Your task to perform on an android device: turn off smart reply in the gmail app Image 0: 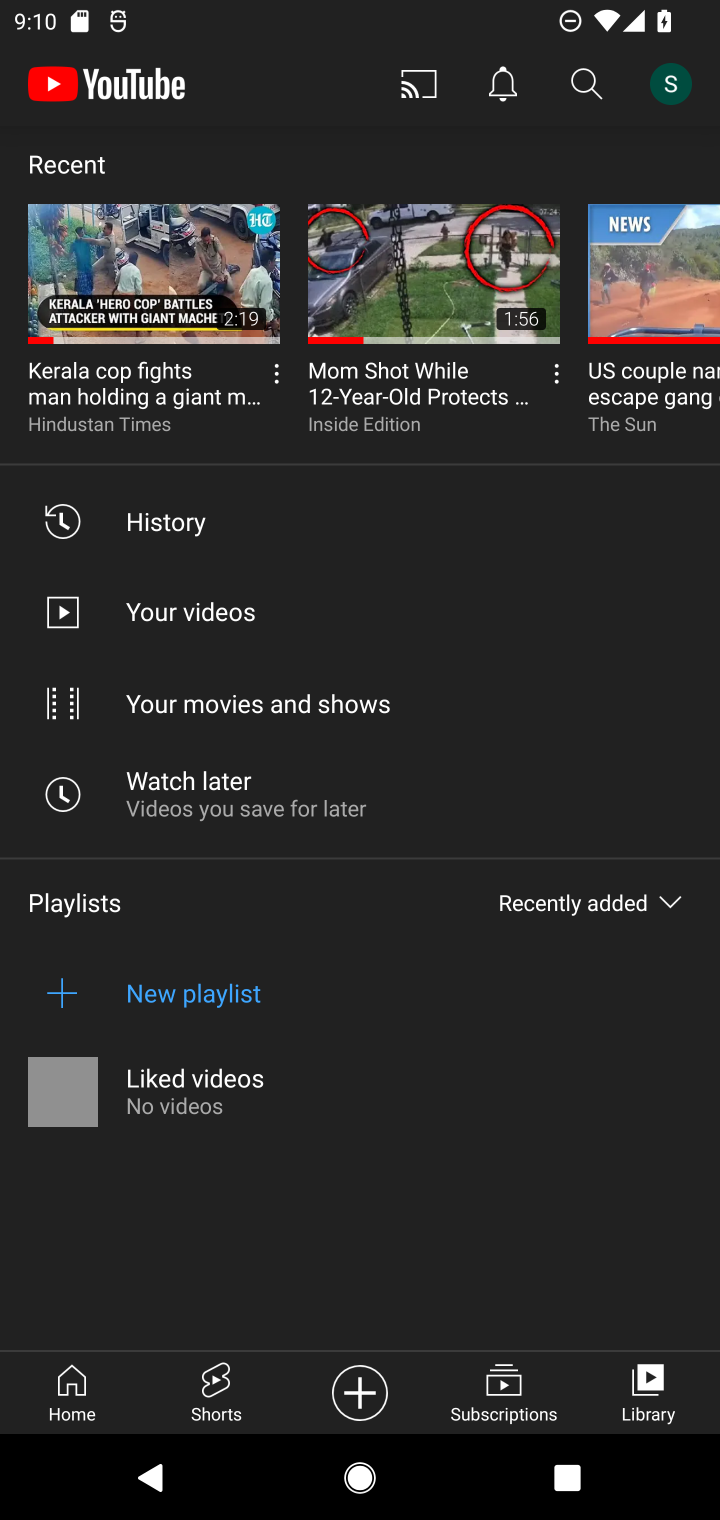
Step 0: press home button
Your task to perform on an android device: turn off smart reply in the gmail app Image 1: 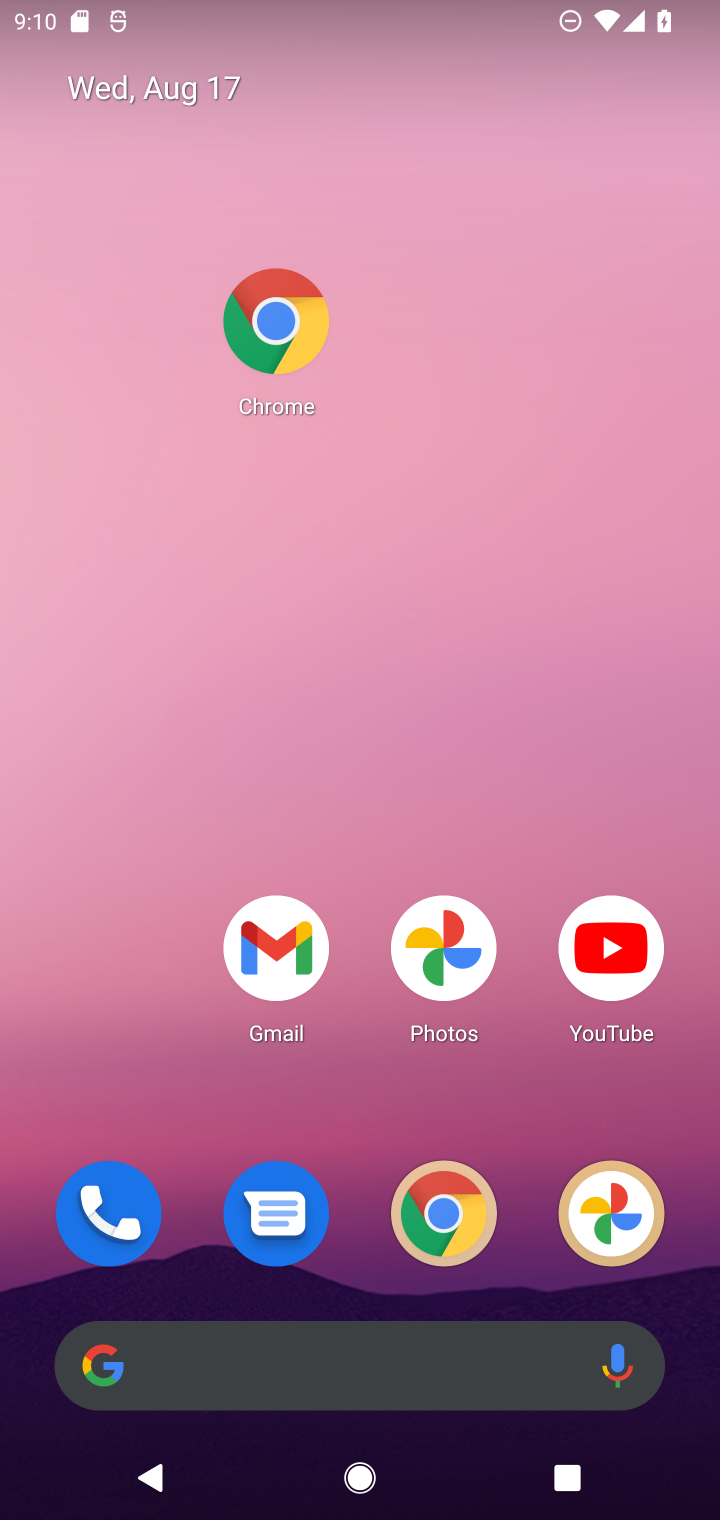
Step 1: drag from (347, 1286) to (308, 81)
Your task to perform on an android device: turn off smart reply in the gmail app Image 2: 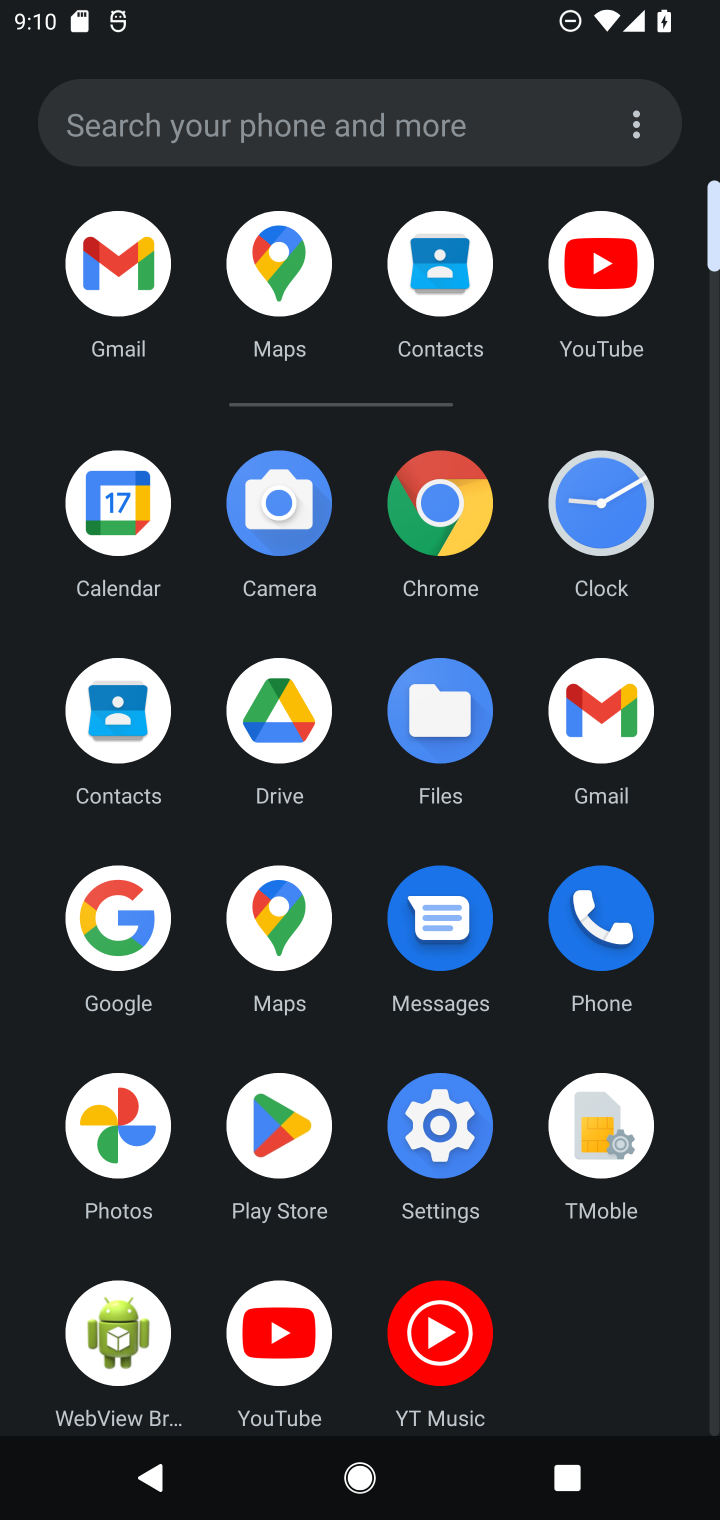
Step 2: click (442, 1131)
Your task to perform on an android device: turn off smart reply in the gmail app Image 3: 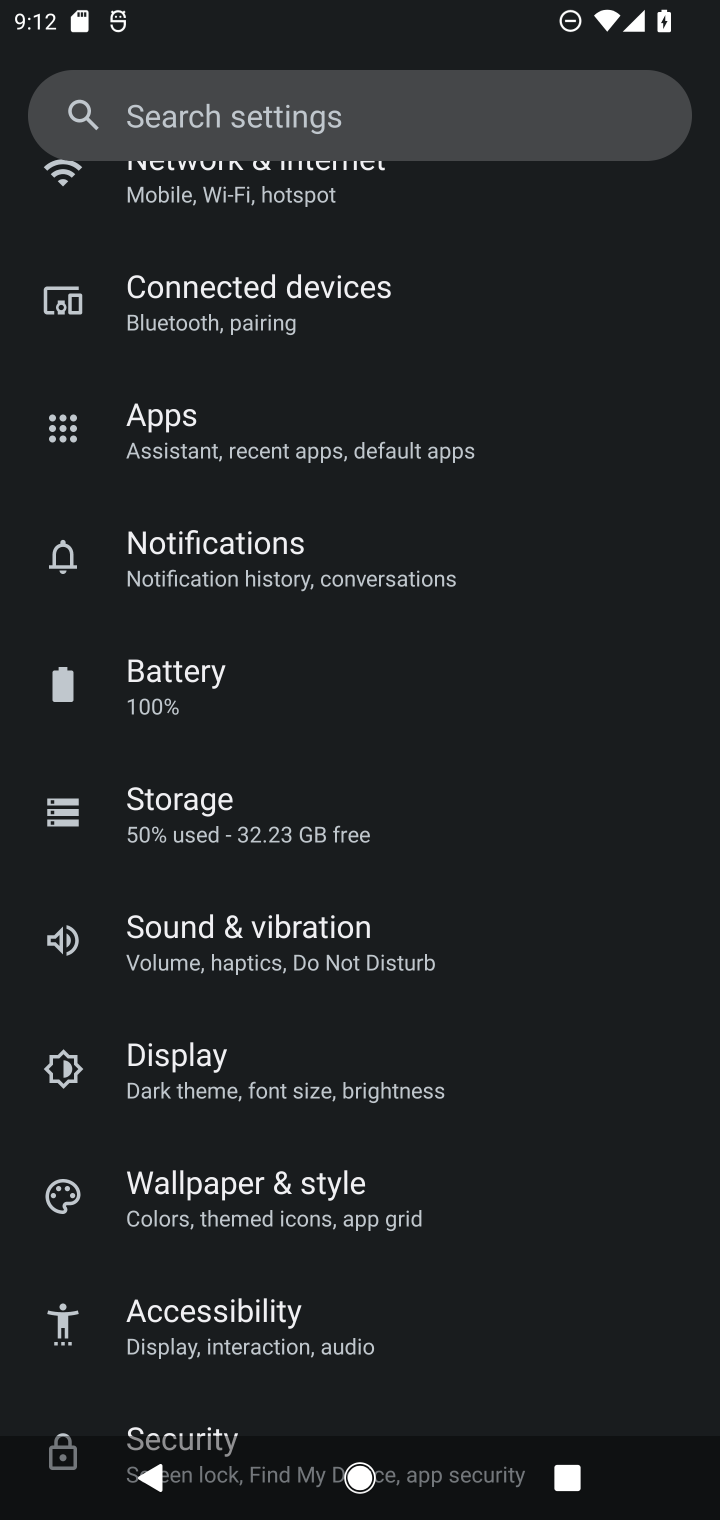
Step 3: task complete